Your task to perform on an android device: Show me popular games on the Play Store Image 0: 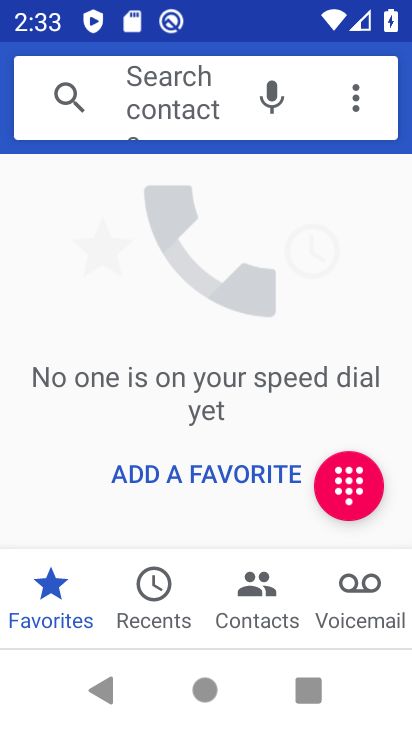
Step 0: press home button
Your task to perform on an android device: Show me popular games on the Play Store Image 1: 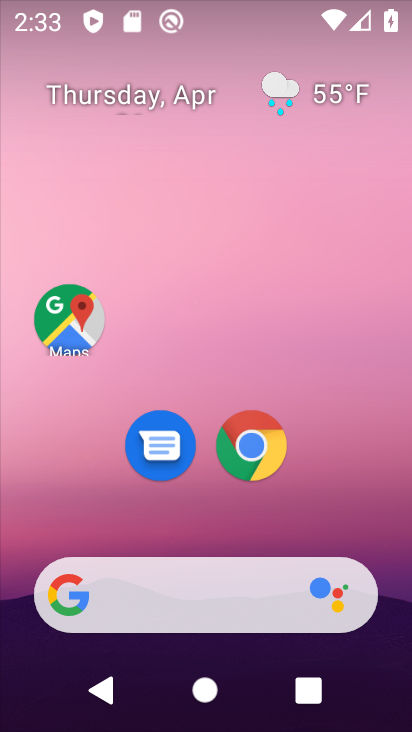
Step 1: drag from (209, 723) to (186, 73)
Your task to perform on an android device: Show me popular games on the Play Store Image 2: 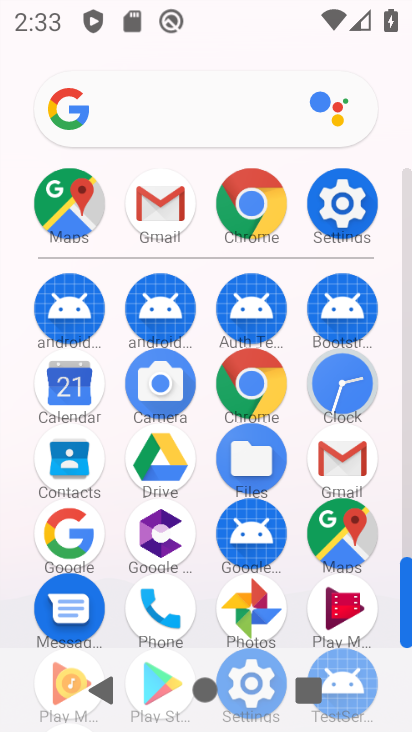
Step 2: drag from (208, 633) to (191, 248)
Your task to perform on an android device: Show me popular games on the Play Store Image 3: 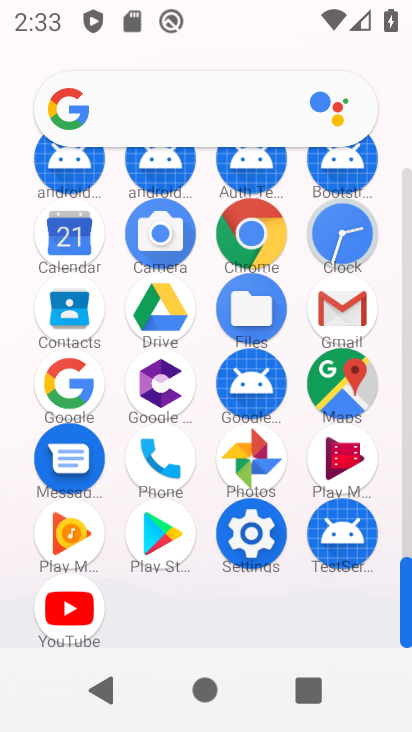
Step 3: click (158, 533)
Your task to perform on an android device: Show me popular games on the Play Store Image 4: 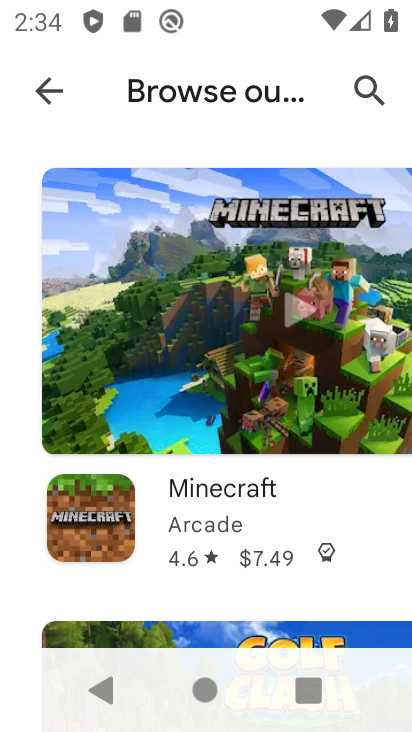
Step 4: task complete